Your task to perform on an android device: Check the news Image 0: 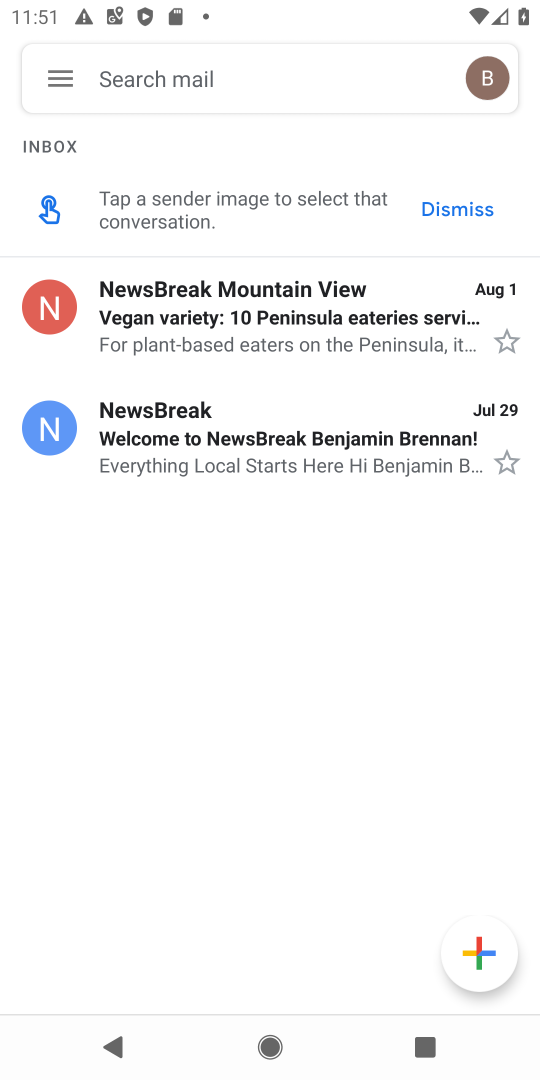
Step 0: press home button
Your task to perform on an android device: Check the news Image 1: 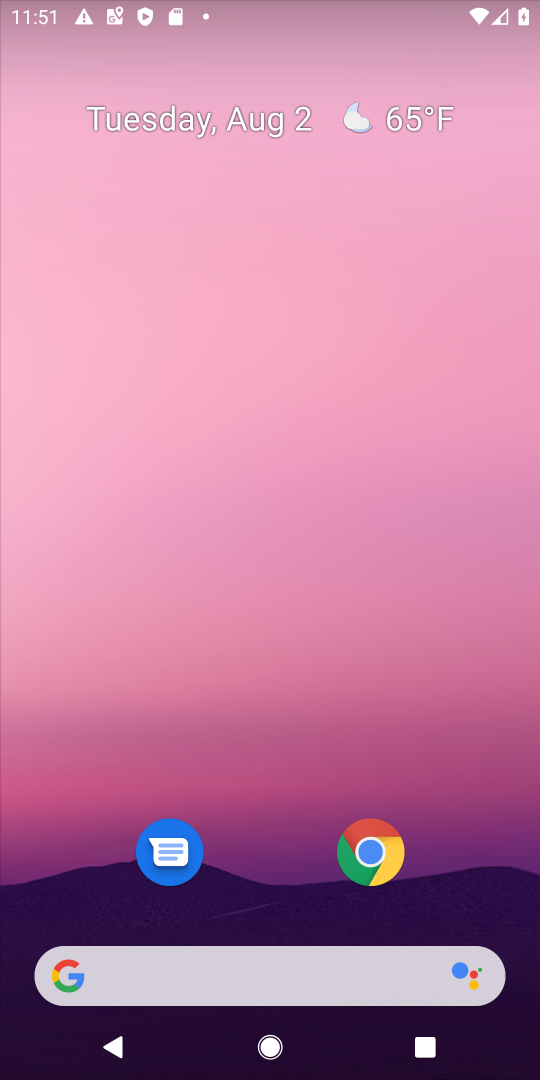
Step 1: drag from (467, 902) to (294, 86)
Your task to perform on an android device: Check the news Image 2: 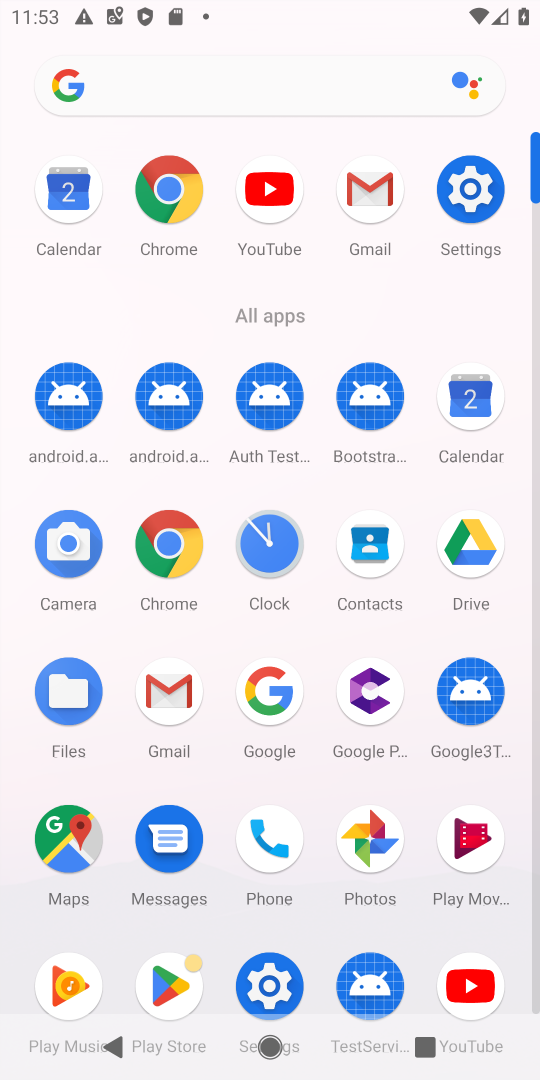
Step 2: click (254, 676)
Your task to perform on an android device: Check the news Image 3: 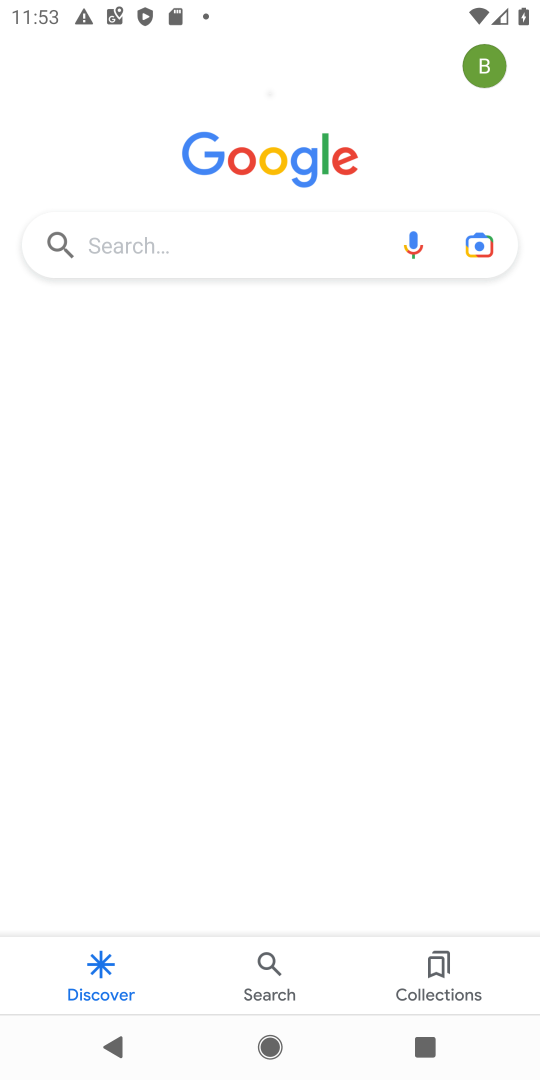
Step 3: click (142, 248)
Your task to perform on an android device: Check the news Image 4: 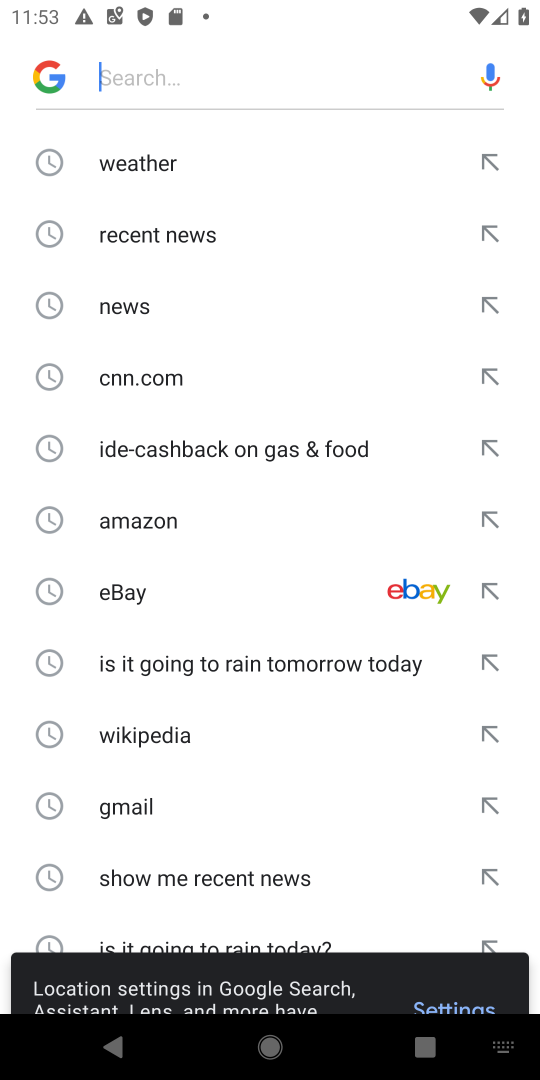
Step 4: click (157, 314)
Your task to perform on an android device: Check the news Image 5: 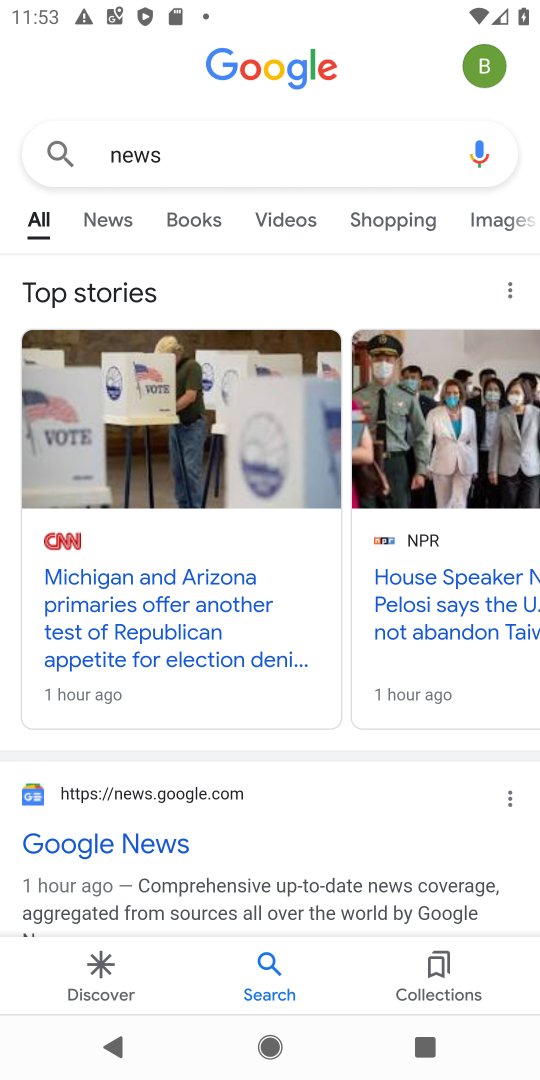
Step 5: task complete